Your task to perform on an android device: turn notification dots off Image 0: 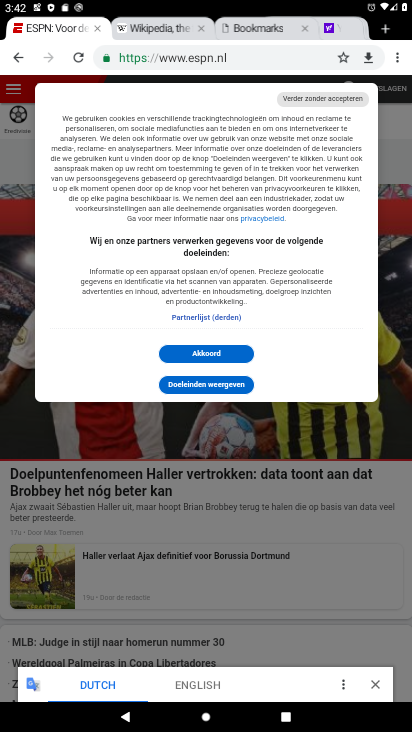
Step 0: press home button
Your task to perform on an android device: turn notification dots off Image 1: 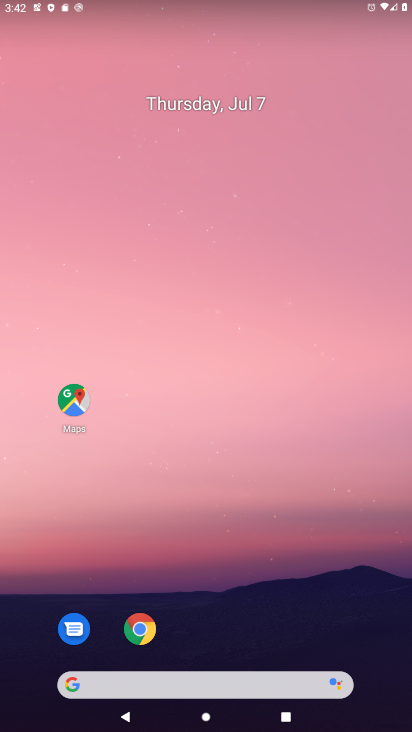
Step 1: drag from (222, 642) to (331, 32)
Your task to perform on an android device: turn notification dots off Image 2: 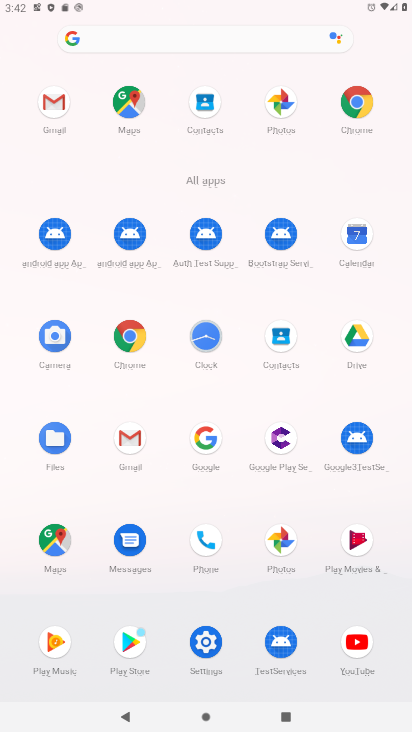
Step 2: click (201, 633)
Your task to perform on an android device: turn notification dots off Image 3: 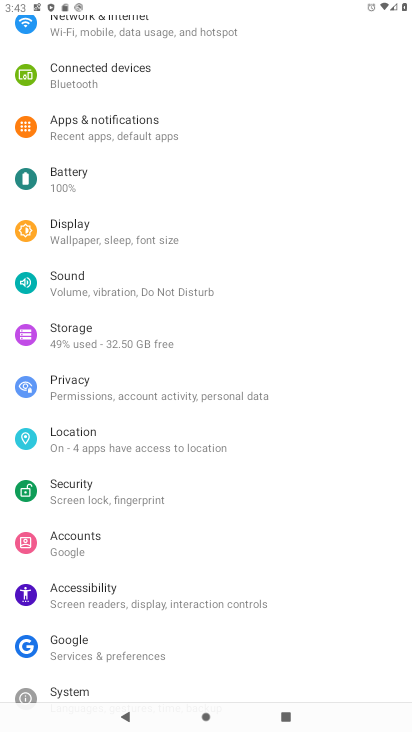
Step 3: click (159, 138)
Your task to perform on an android device: turn notification dots off Image 4: 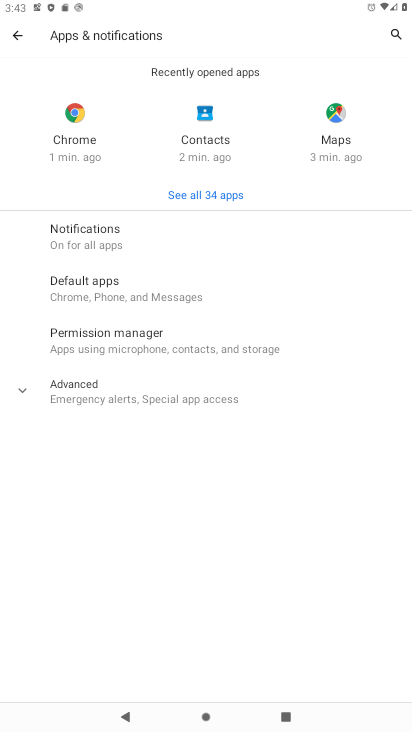
Step 4: click (94, 239)
Your task to perform on an android device: turn notification dots off Image 5: 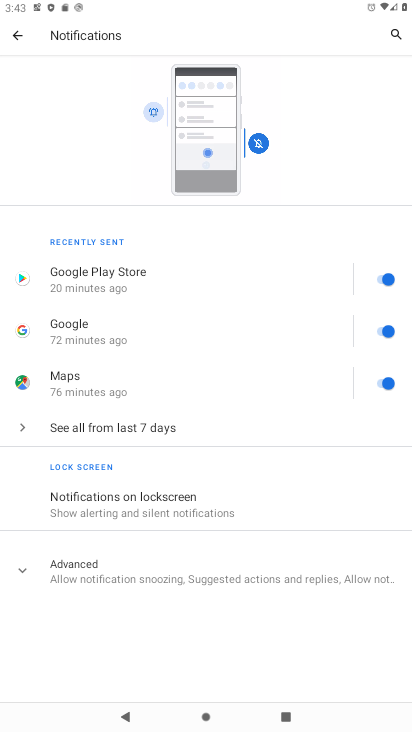
Step 5: click (113, 503)
Your task to perform on an android device: turn notification dots off Image 6: 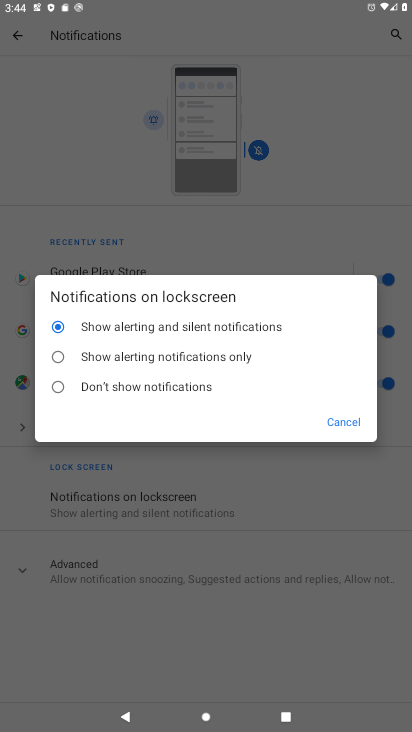
Step 6: click (344, 421)
Your task to perform on an android device: turn notification dots off Image 7: 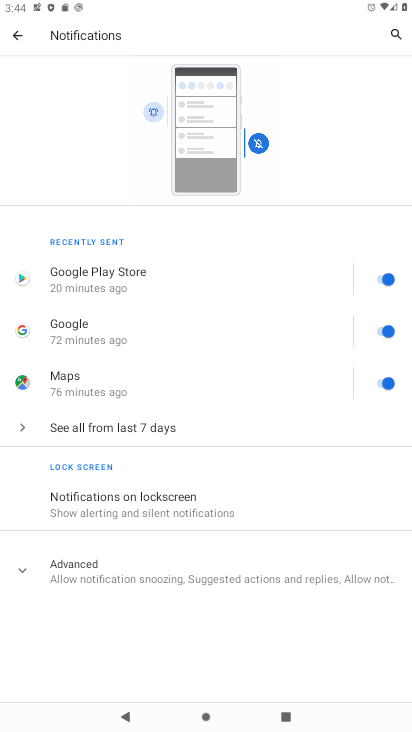
Step 7: click (79, 575)
Your task to perform on an android device: turn notification dots off Image 8: 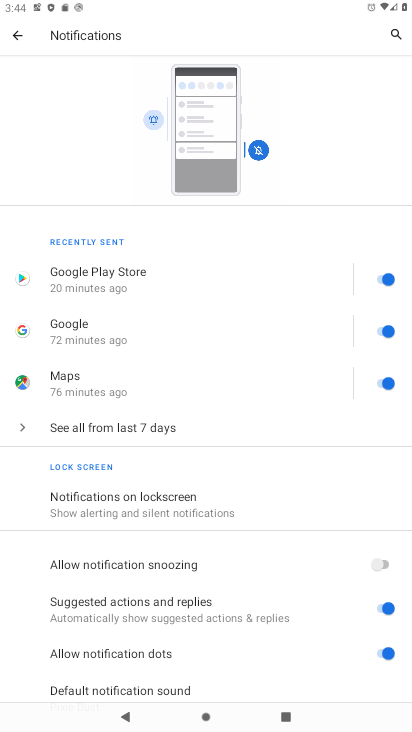
Step 8: click (387, 657)
Your task to perform on an android device: turn notification dots off Image 9: 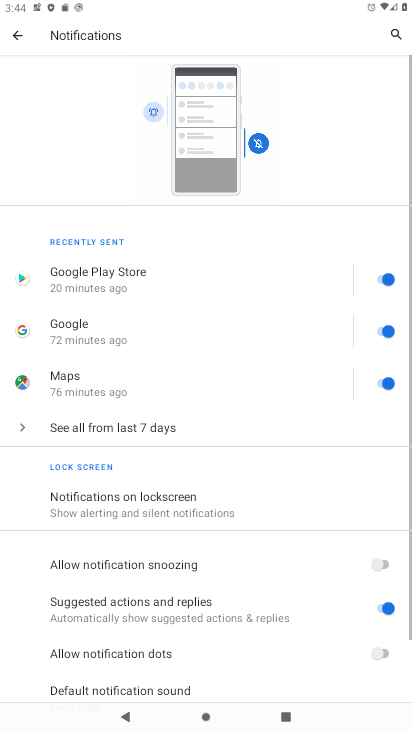
Step 9: task complete